Your task to perform on an android device: Go to eBay Image 0: 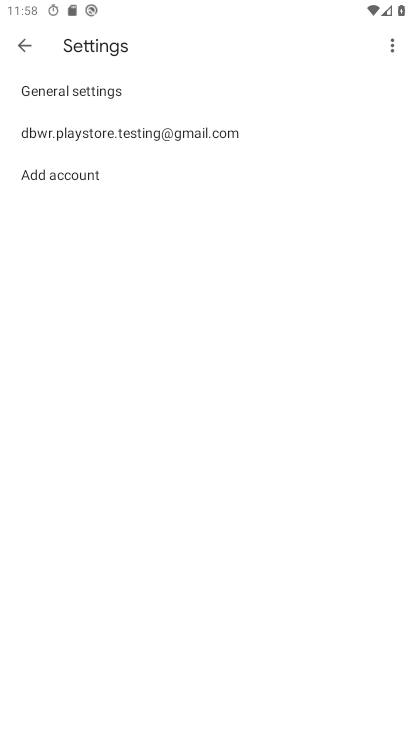
Step 0: press home button
Your task to perform on an android device: Go to eBay Image 1: 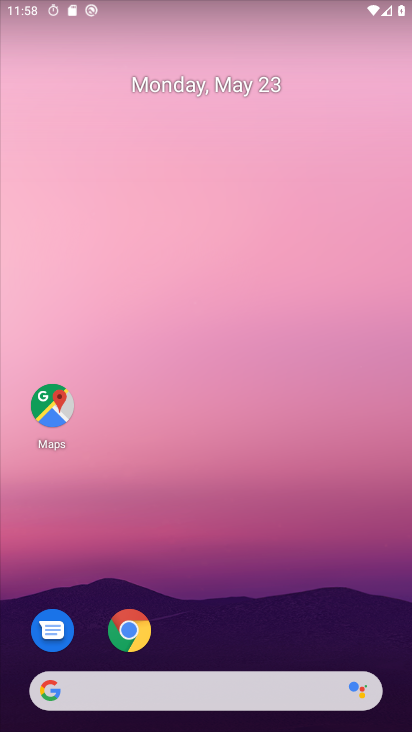
Step 1: click (134, 629)
Your task to perform on an android device: Go to eBay Image 2: 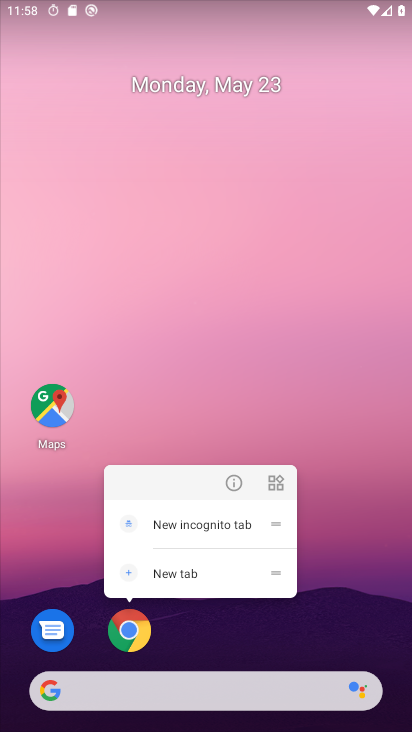
Step 2: click (135, 630)
Your task to perform on an android device: Go to eBay Image 3: 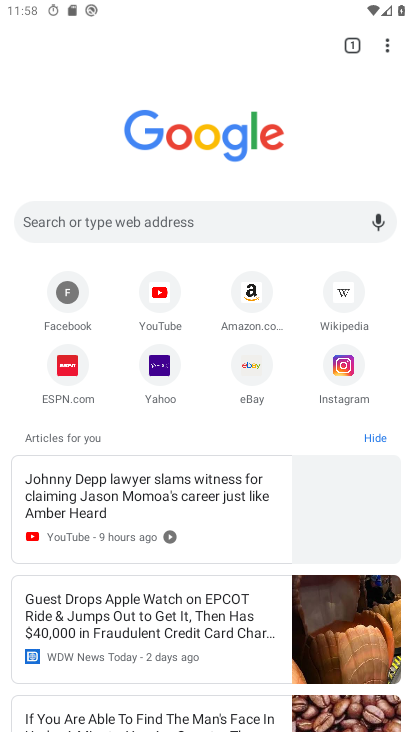
Step 3: click (163, 215)
Your task to perform on an android device: Go to eBay Image 4: 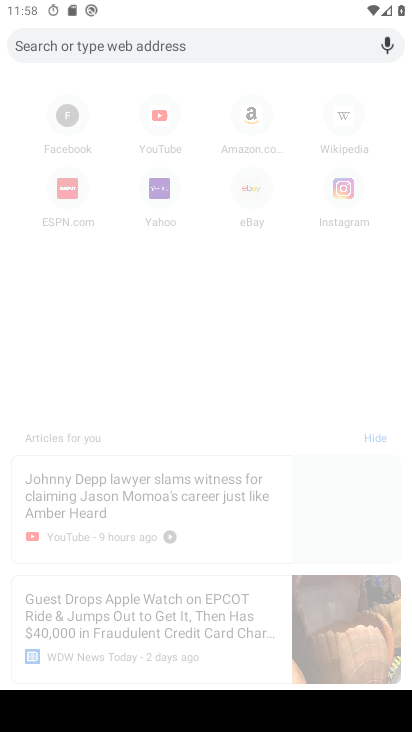
Step 4: click (254, 196)
Your task to perform on an android device: Go to eBay Image 5: 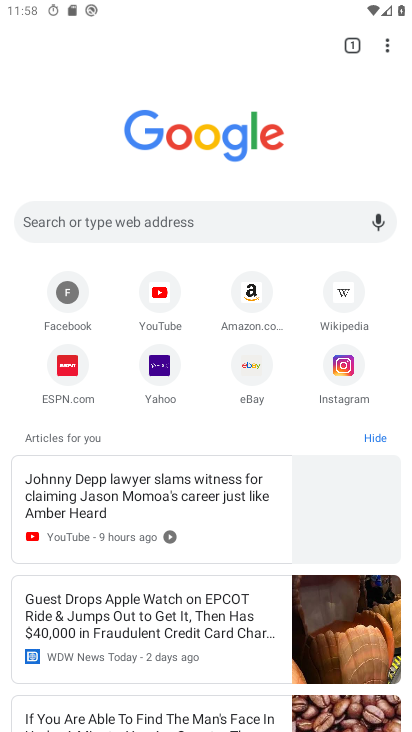
Step 5: click (260, 393)
Your task to perform on an android device: Go to eBay Image 6: 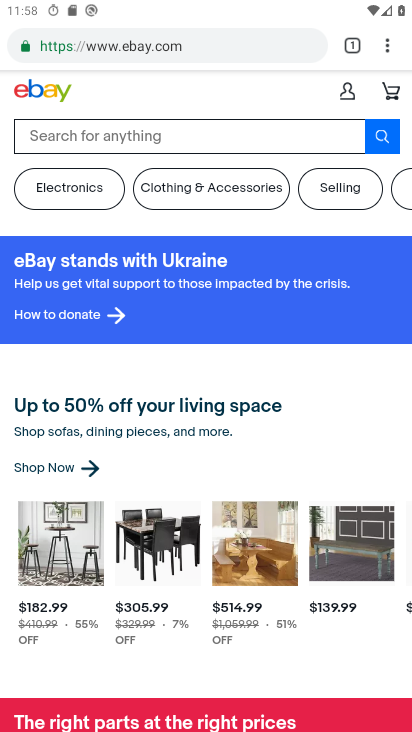
Step 6: task complete